Your task to perform on an android device: turn off picture-in-picture Image 0: 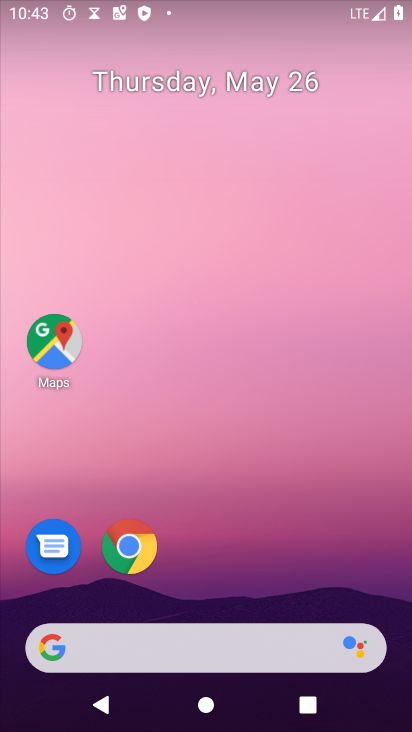
Step 0: drag from (344, 536) to (345, 173)
Your task to perform on an android device: turn off picture-in-picture Image 1: 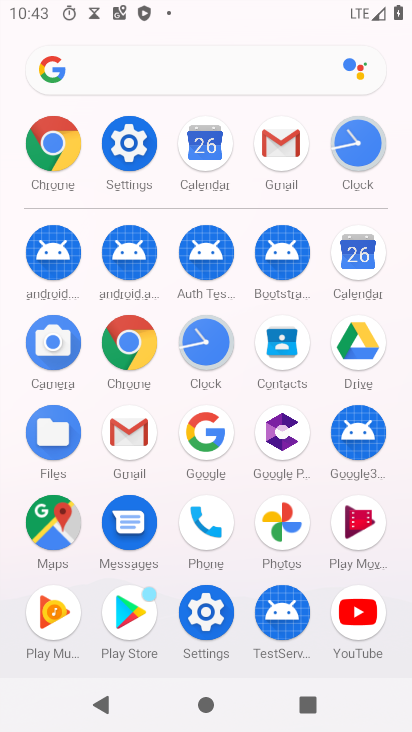
Step 1: click (130, 164)
Your task to perform on an android device: turn off picture-in-picture Image 2: 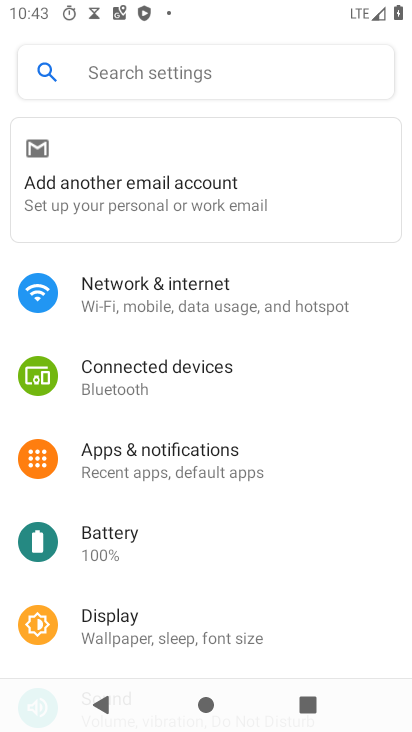
Step 2: drag from (270, 583) to (271, 340)
Your task to perform on an android device: turn off picture-in-picture Image 3: 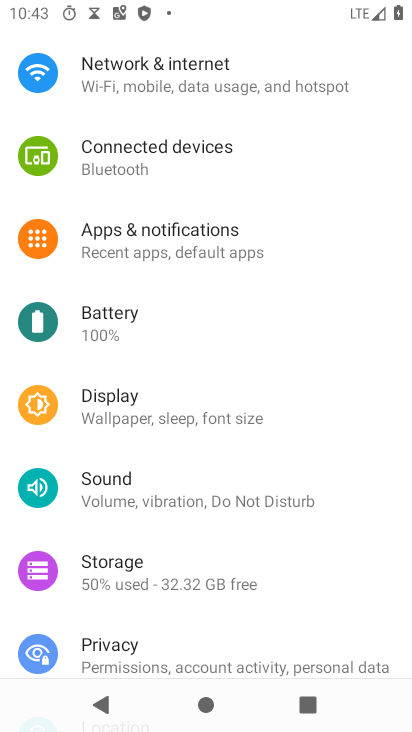
Step 3: click (216, 243)
Your task to perform on an android device: turn off picture-in-picture Image 4: 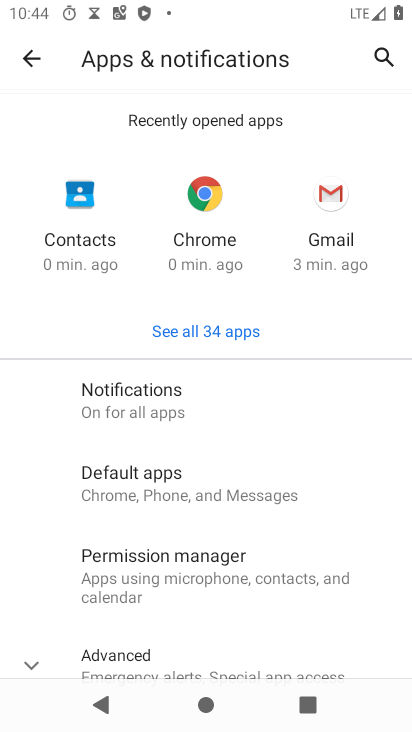
Step 4: drag from (354, 603) to (329, 268)
Your task to perform on an android device: turn off picture-in-picture Image 5: 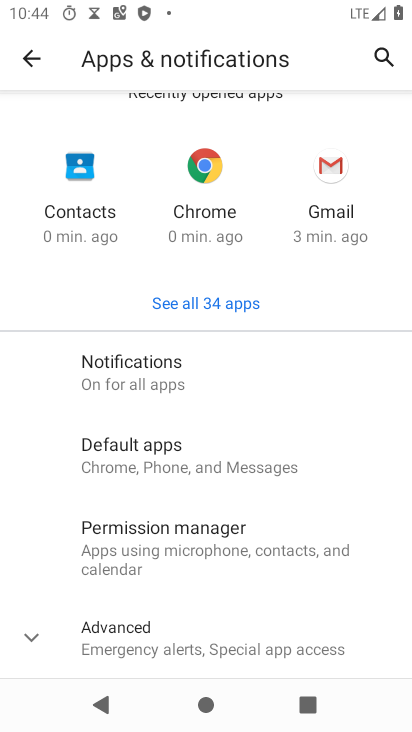
Step 5: drag from (292, 611) to (277, 298)
Your task to perform on an android device: turn off picture-in-picture Image 6: 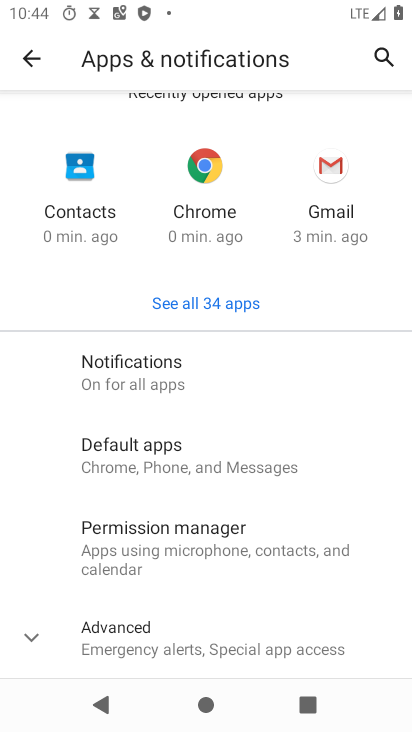
Step 6: click (236, 639)
Your task to perform on an android device: turn off picture-in-picture Image 7: 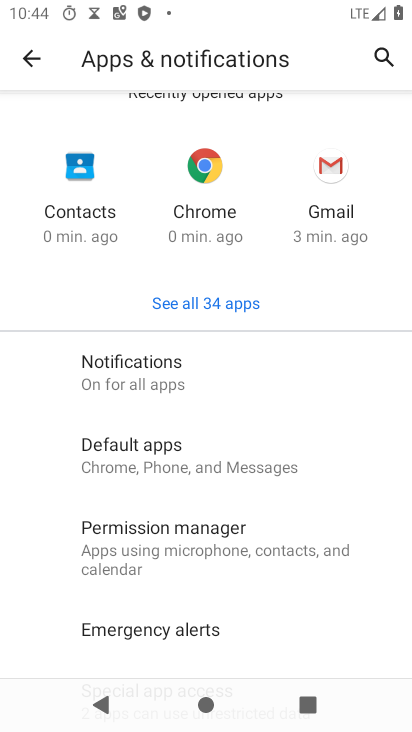
Step 7: drag from (261, 689) to (274, 411)
Your task to perform on an android device: turn off picture-in-picture Image 8: 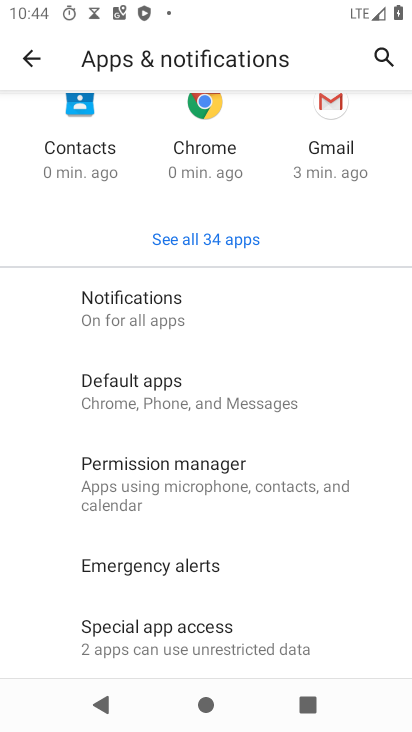
Step 8: click (232, 634)
Your task to perform on an android device: turn off picture-in-picture Image 9: 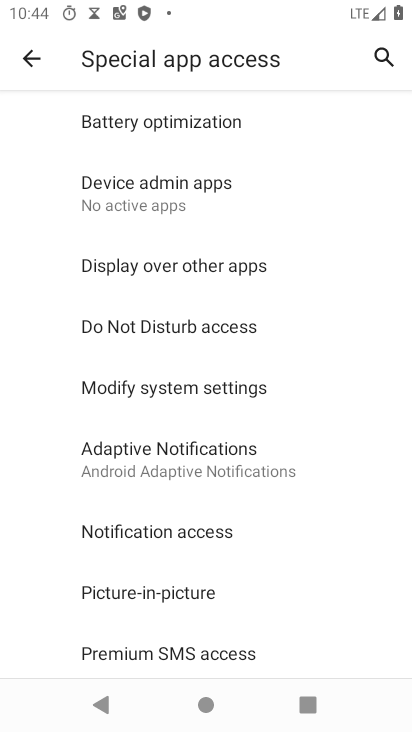
Step 9: click (210, 592)
Your task to perform on an android device: turn off picture-in-picture Image 10: 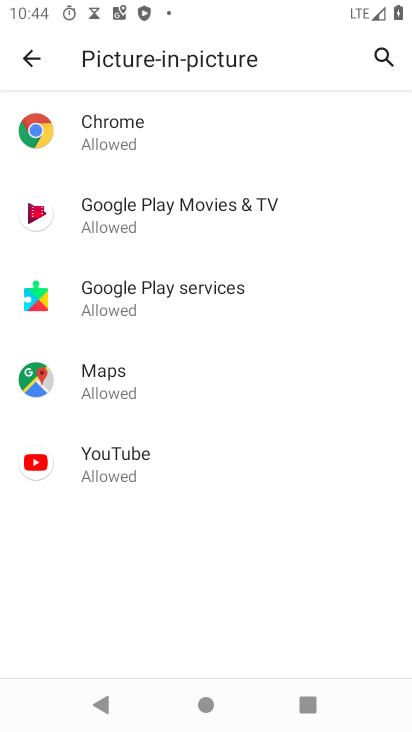
Step 10: click (180, 111)
Your task to perform on an android device: turn off picture-in-picture Image 11: 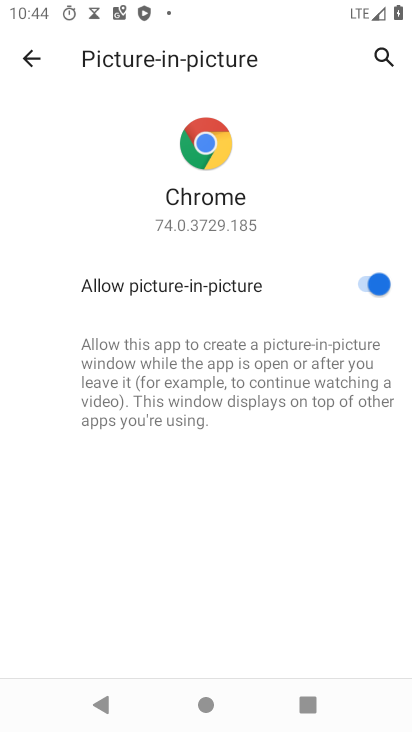
Step 11: click (358, 290)
Your task to perform on an android device: turn off picture-in-picture Image 12: 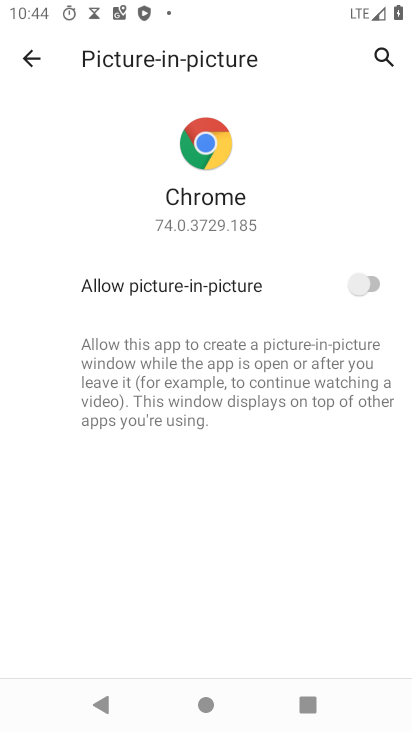
Step 12: task complete